Your task to perform on an android device: change the clock display to show seconds Image 0: 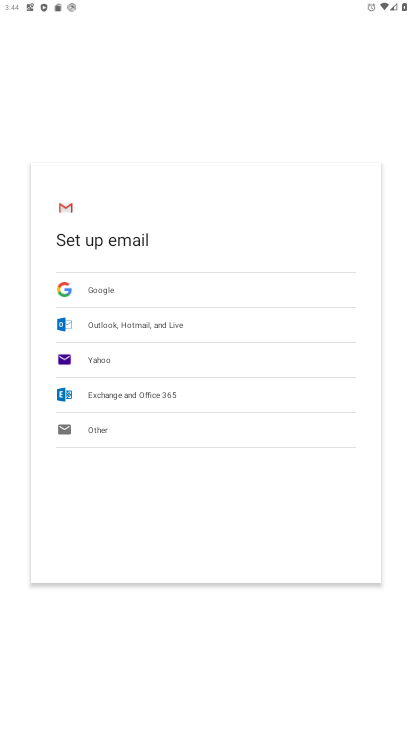
Step 0: press home button
Your task to perform on an android device: change the clock display to show seconds Image 1: 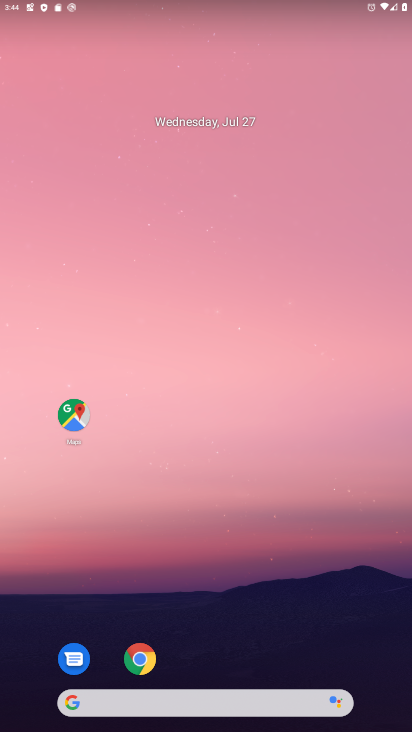
Step 1: drag from (289, 649) to (288, 209)
Your task to perform on an android device: change the clock display to show seconds Image 2: 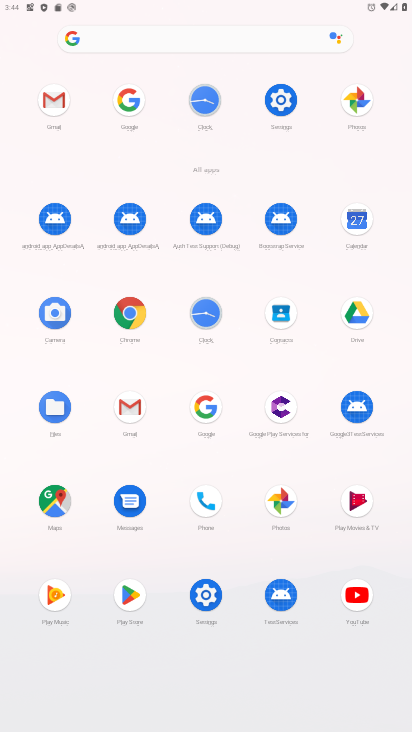
Step 2: click (203, 319)
Your task to perform on an android device: change the clock display to show seconds Image 3: 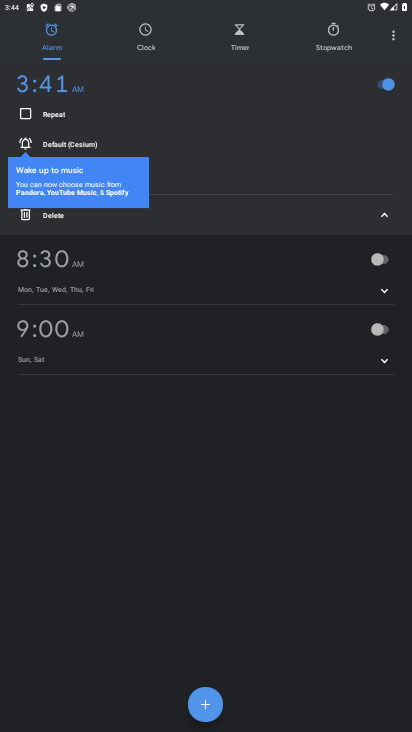
Step 3: click (396, 40)
Your task to perform on an android device: change the clock display to show seconds Image 4: 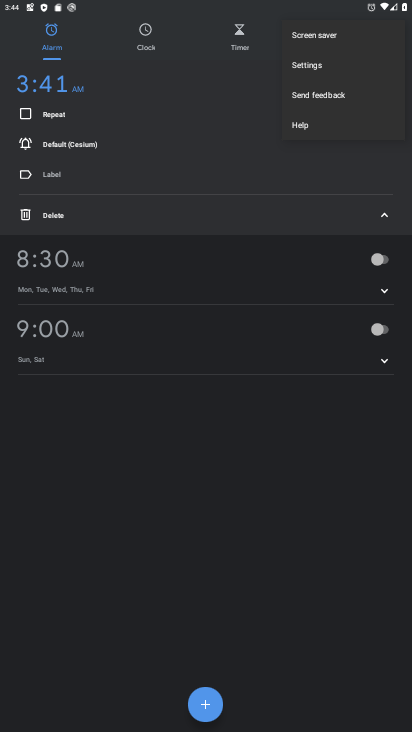
Step 4: click (320, 65)
Your task to perform on an android device: change the clock display to show seconds Image 5: 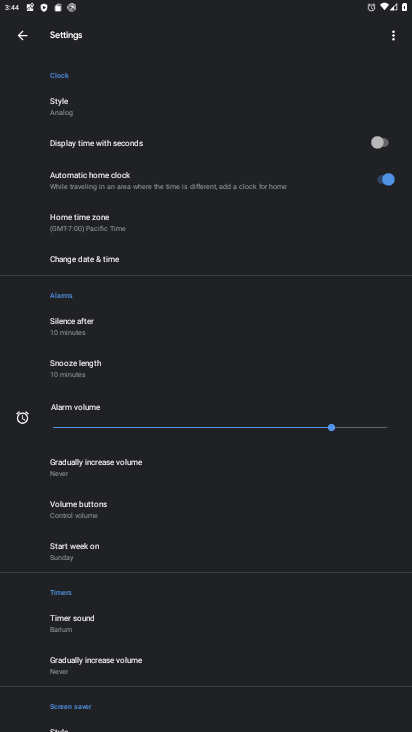
Step 5: click (383, 137)
Your task to perform on an android device: change the clock display to show seconds Image 6: 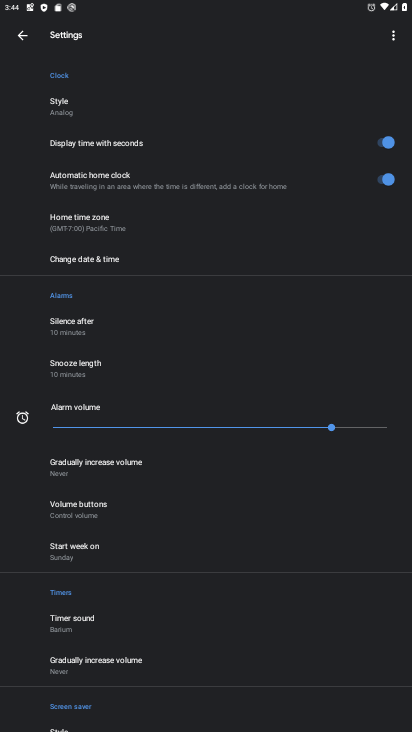
Step 6: task complete